Your task to perform on an android device: toggle notification dots Image 0: 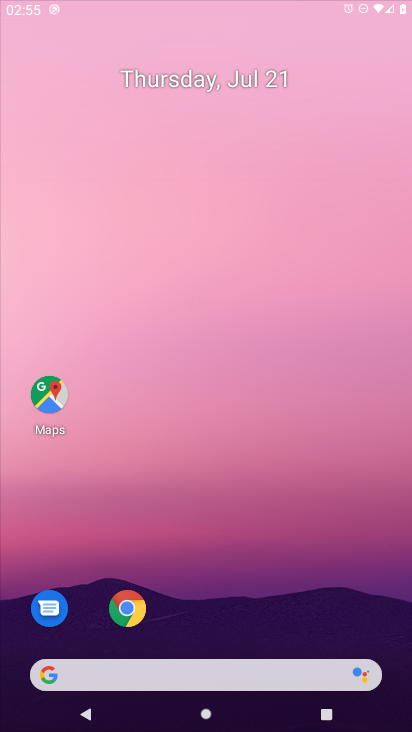
Step 0: press home button
Your task to perform on an android device: toggle notification dots Image 1: 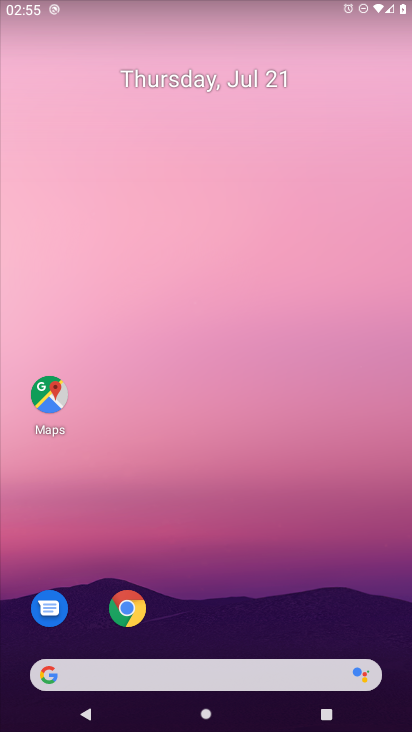
Step 1: drag from (241, 609) to (254, 161)
Your task to perform on an android device: toggle notification dots Image 2: 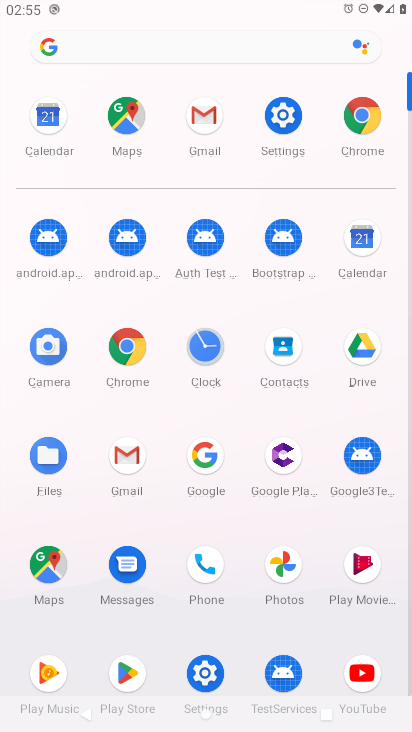
Step 2: click (288, 134)
Your task to perform on an android device: toggle notification dots Image 3: 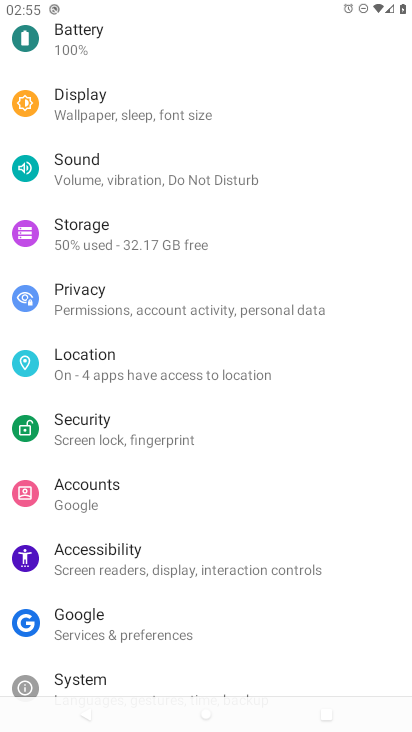
Step 3: drag from (346, 114) to (278, 724)
Your task to perform on an android device: toggle notification dots Image 4: 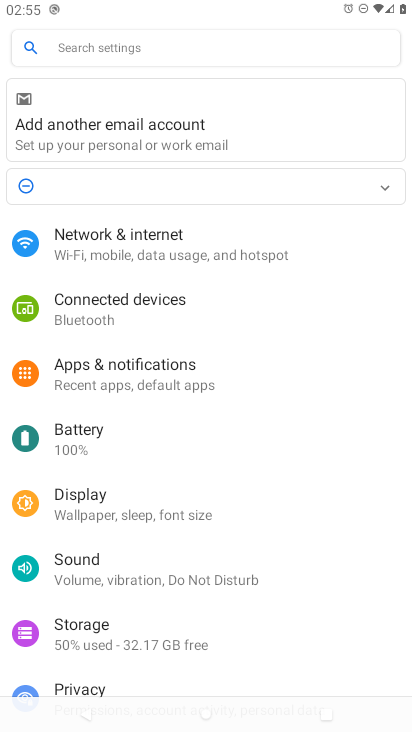
Step 4: click (108, 368)
Your task to perform on an android device: toggle notification dots Image 5: 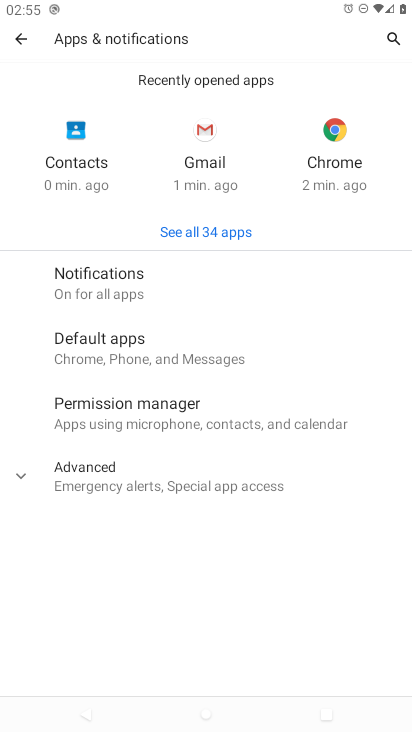
Step 5: click (92, 283)
Your task to perform on an android device: toggle notification dots Image 6: 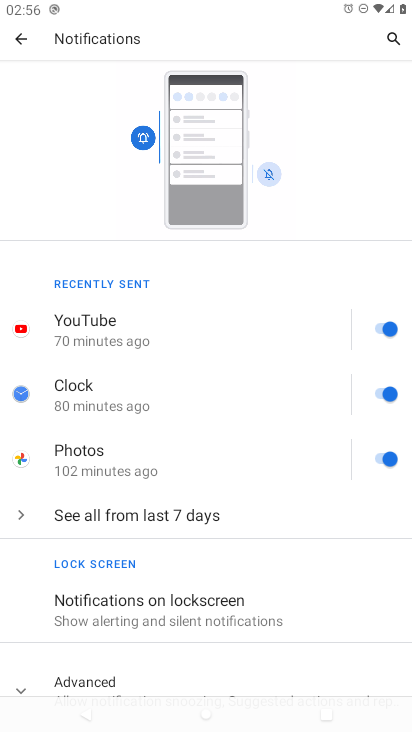
Step 6: drag from (253, 661) to (252, 266)
Your task to perform on an android device: toggle notification dots Image 7: 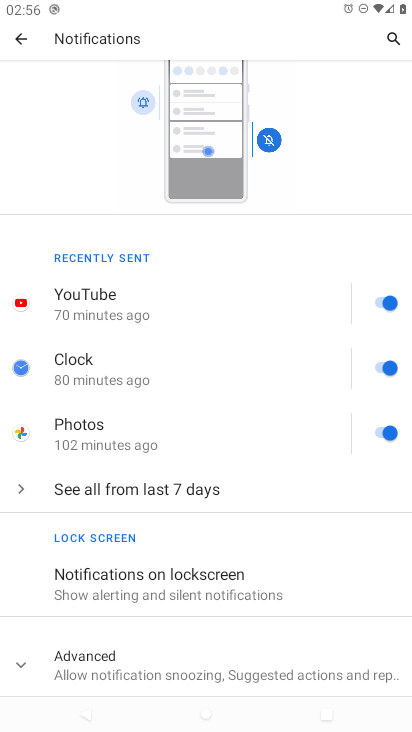
Step 7: click (77, 683)
Your task to perform on an android device: toggle notification dots Image 8: 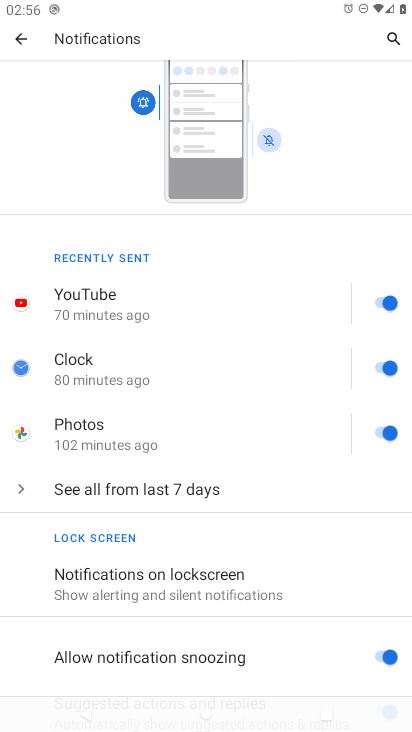
Step 8: drag from (305, 597) to (308, 147)
Your task to perform on an android device: toggle notification dots Image 9: 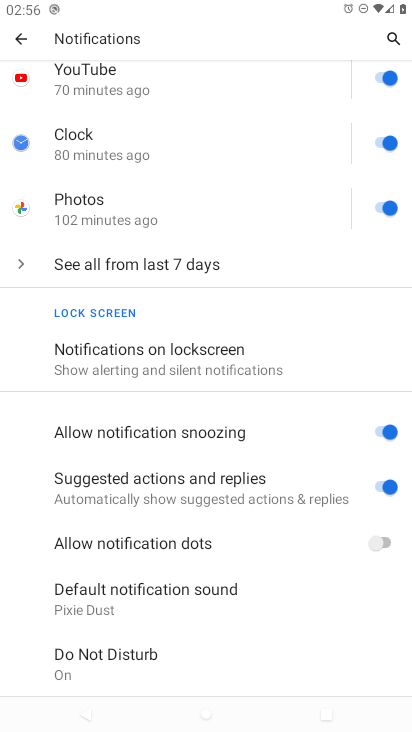
Step 9: click (375, 544)
Your task to perform on an android device: toggle notification dots Image 10: 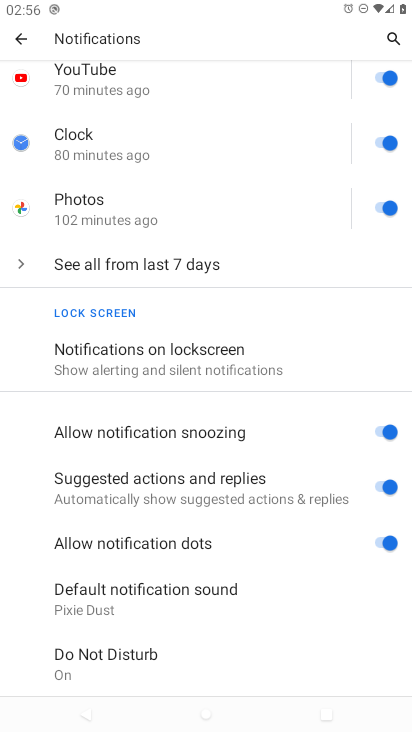
Step 10: task complete